Your task to perform on an android device: toggle javascript in the chrome app Image 0: 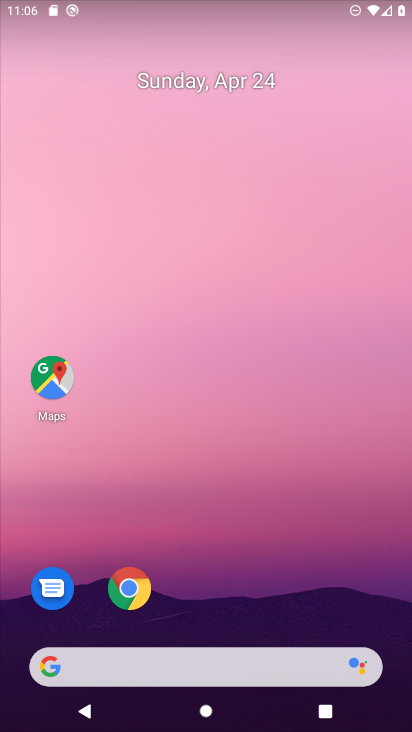
Step 0: click (128, 576)
Your task to perform on an android device: toggle javascript in the chrome app Image 1: 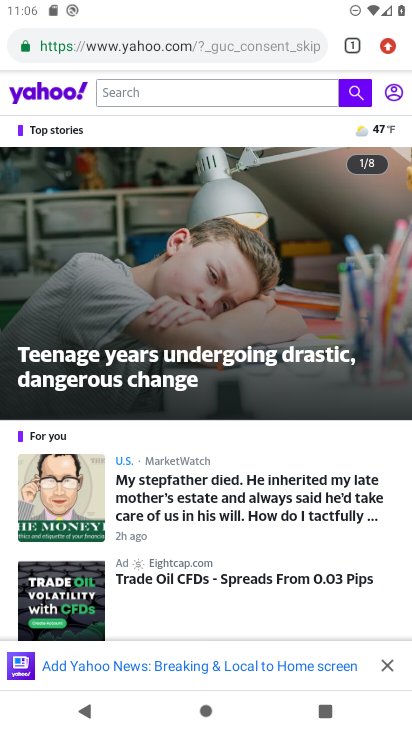
Step 1: drag from (381, 53) to (227, 601)
Your task to perform on an android device: toggle javascript in the chrome app Image 2: 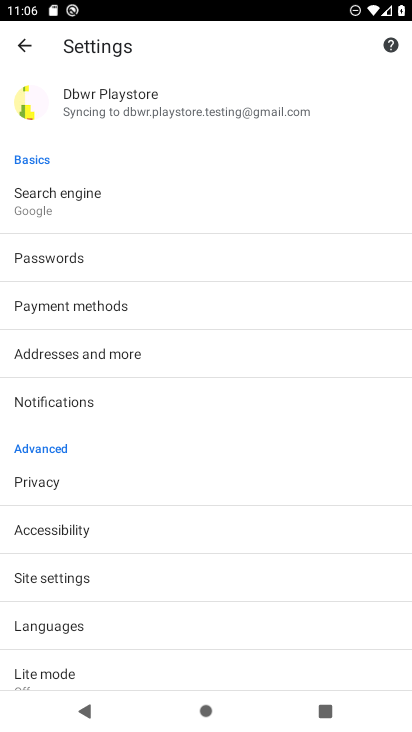
Step 2: click (97, 575)
Your task to perform on an android device: toggle javascript in the chrome app Image 3: 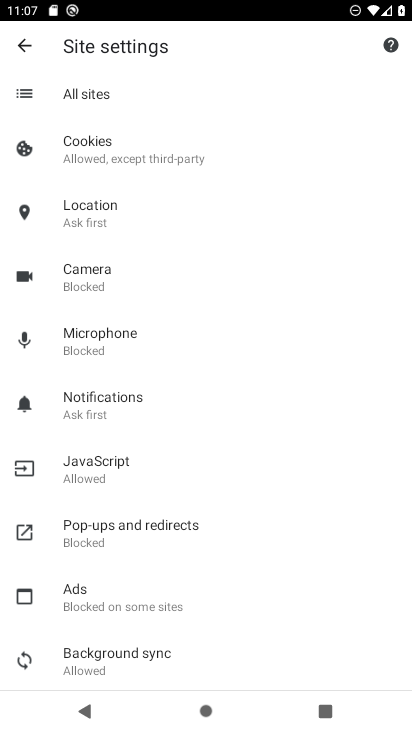
Step 3: click (112, 473)
Your task to perform on an android device: toggle javascript in the chrome app Image 4: 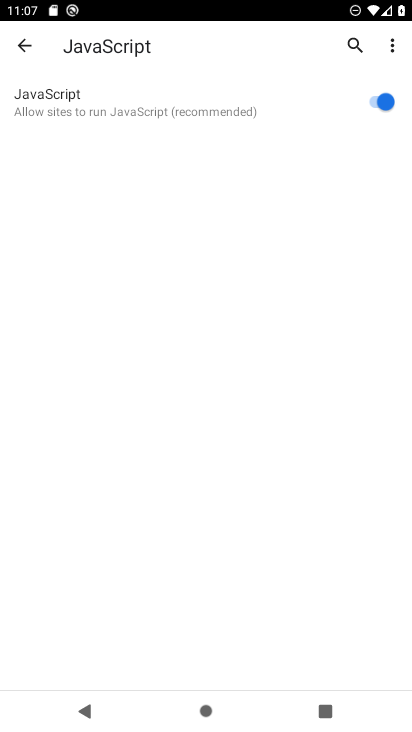
Step 4: click (368, 104)
Your task to perform on an android device: toggle javascript in the chrome app Image 5: 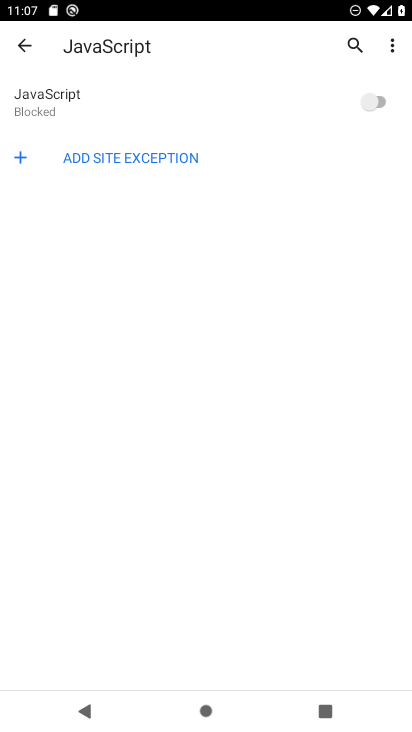
Step 5: task complete